Your task to perform on an android device: Open calendar and show me the second week of next month Image 0: 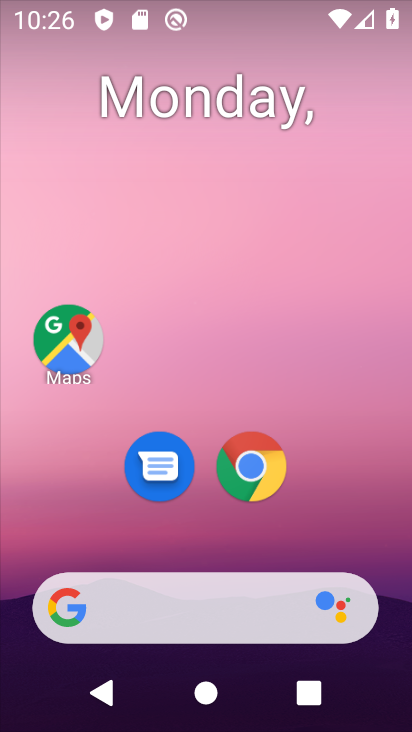
Step 0: drag from (338, 461) to (318, 66)
Your task to perform on an android device: Open calendar and show me the second week of next month Image 1: 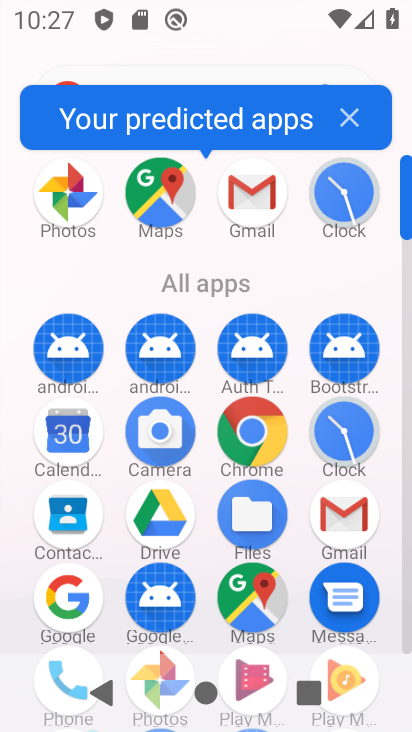
Step 1: click (63, 436)
Your task to perform on an android device: Open calendar and show me the second week of next month Image 2: 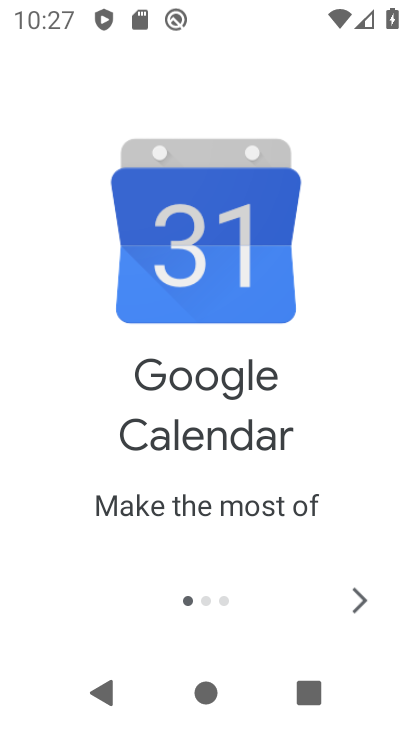
Step 2: click (357, 594)
Your task to perform on an android device: Open calendar and show me the second week of next month Image 3: 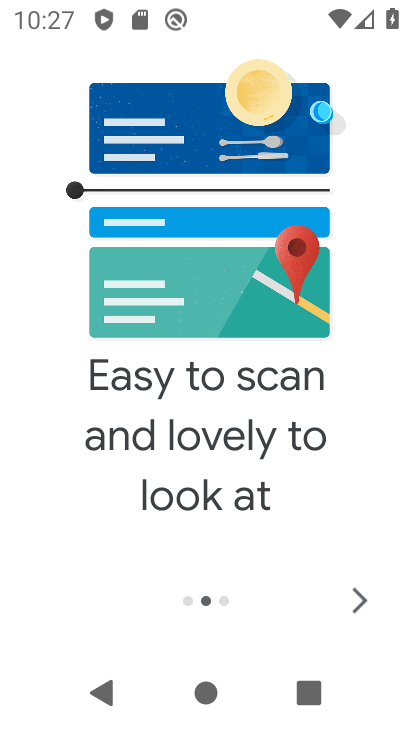
Step 3: click (359, 594)
Your task to perform on an android device: Open calendar and show me the second week of next month Image 4: 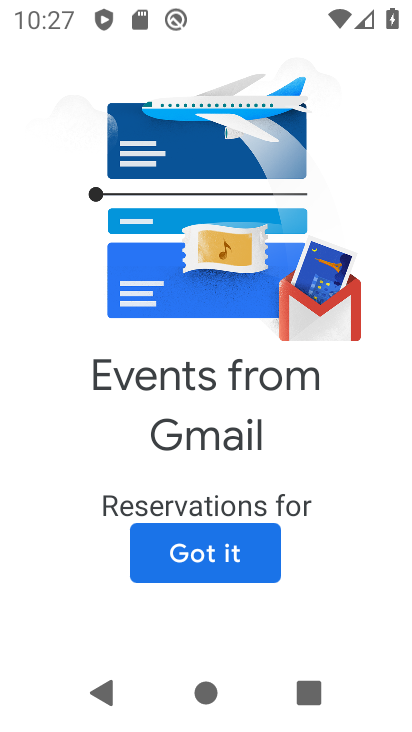
Step 4: click (262, 552)
Your task to perform on an android device: Open calendar and show me the second week of next month Image 5: 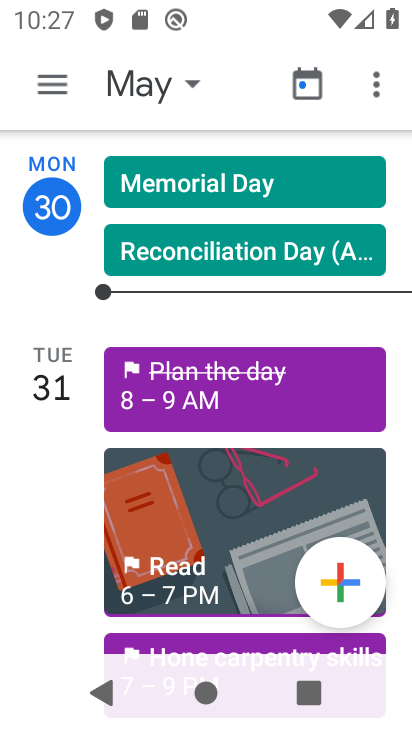
Step 5: task complete